Your task to perform on an android device: Google the capital of Brazil Image 0: 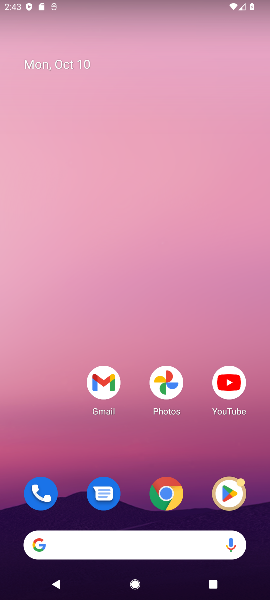
Step 0: click (164, 491)
Your task to perform on an android device: Google the capital of Brazil Image 1: 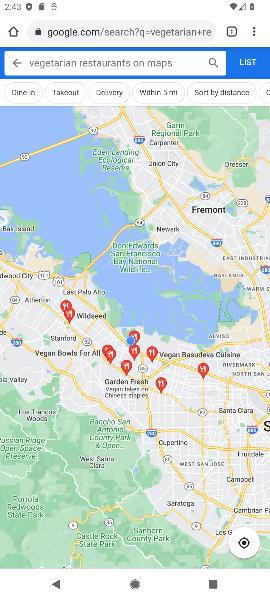
Step 1: click (208, 31)
Your task to perform on an android device: Google the capital of Brazil Image 2: 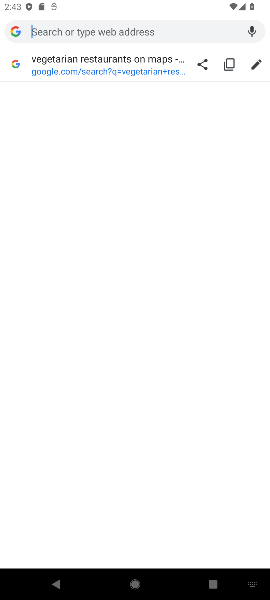
Step 2: type "the capital of brazil"
Your task to perform on an android device: Google the capital of Brazil Image 3: 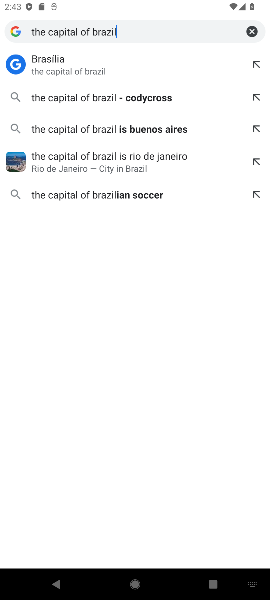
Step 3: click (68, 105)
Your task to perform on an android device: Google the capital of Brazil Image 4: 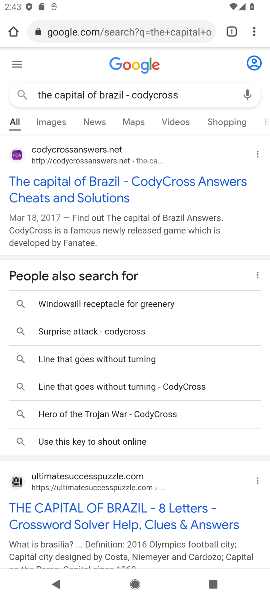
Step 4: click (159, 187)
Your task to perform on an android device: Google the capital of Brazil Image 5: 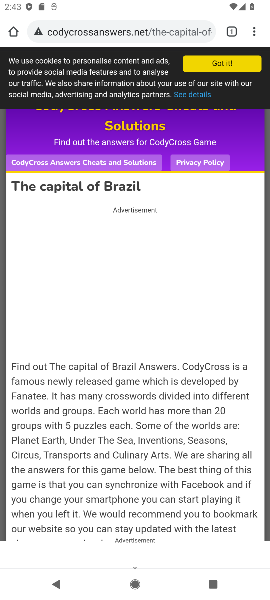
Step 5: task complete